Your task to perform on an android device: Open network settings Image 0: 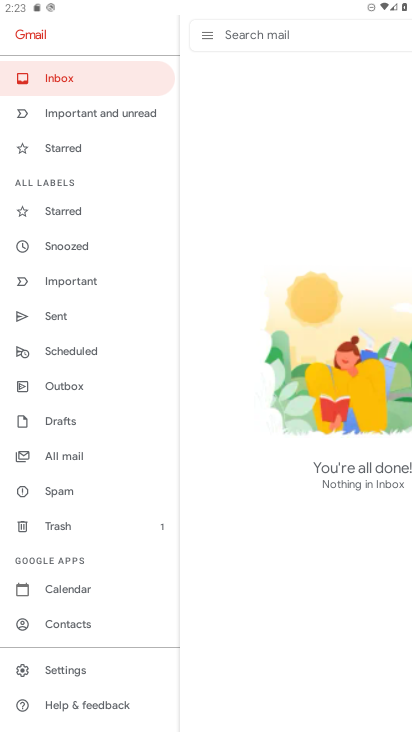
Step 0: press home button
Your task to perform on an android device: Open network settings Image 1: 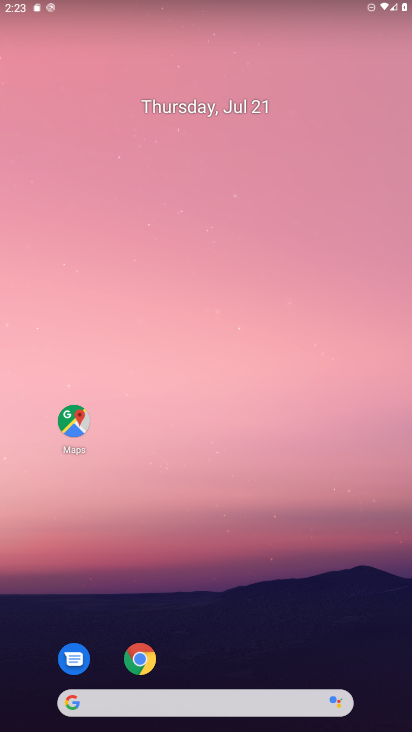
Step 1: drag from (59, 415) to (176, 88)
Your task to perform on an android device: Open network settings Image 2: 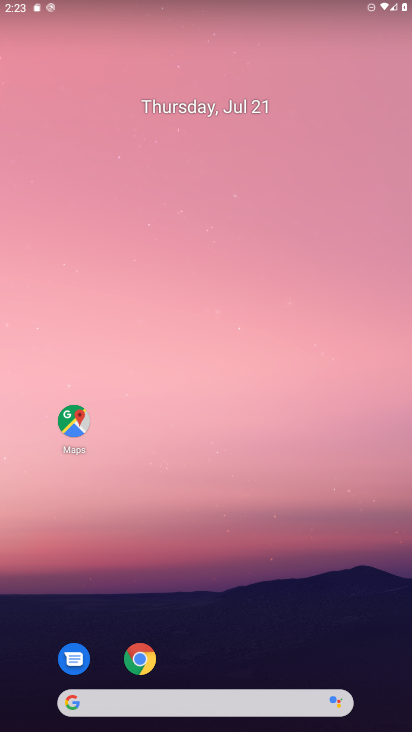
Step 2: drag from (50, 539) to (259, 41)
Your task to perform on an android device: Open network settings Image 3: 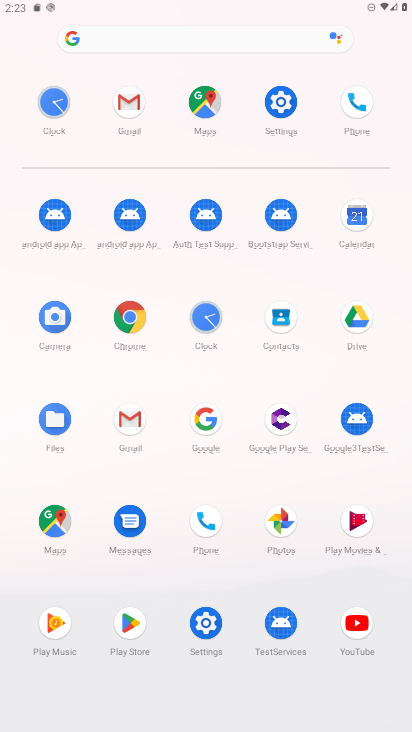
Step 3: click (196, 635)
Your task to perform on an android device: Open network settings Image 4: 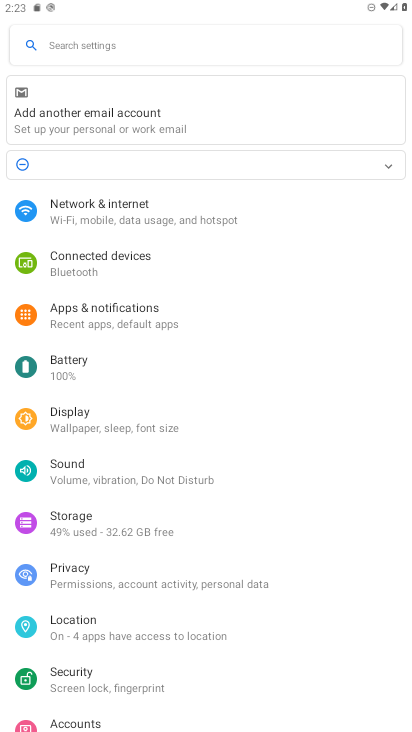
Step 4: click (120, 209)
Your task to perform on an android device: Open network settings Image 5: 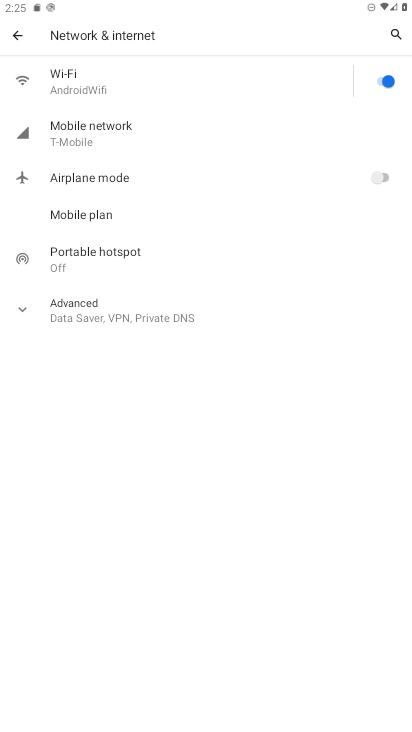
Step 5: click (129, 125)
Your task to perform on an android device: Open network settings Image 6: 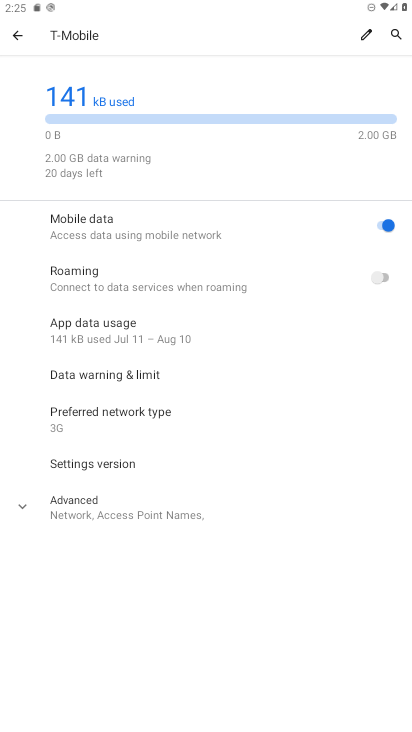
Step 6: task complete